Your task to perform on an android device: stop showing notifications on the lock screen Image 0: 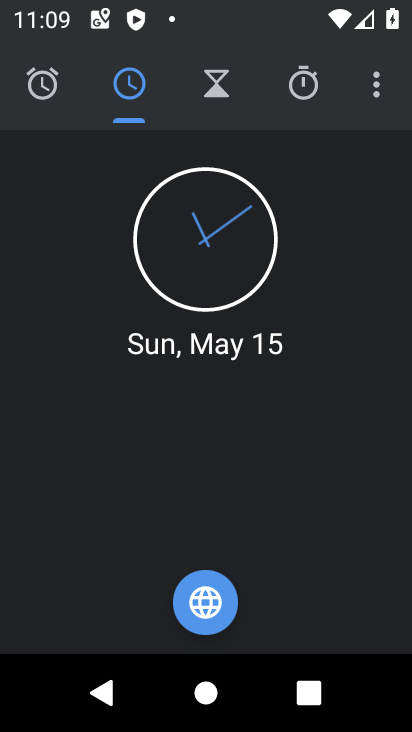
Step 0: press home button
Your task to perform on an android device: stop showing notifications on the lock screen Image 1: 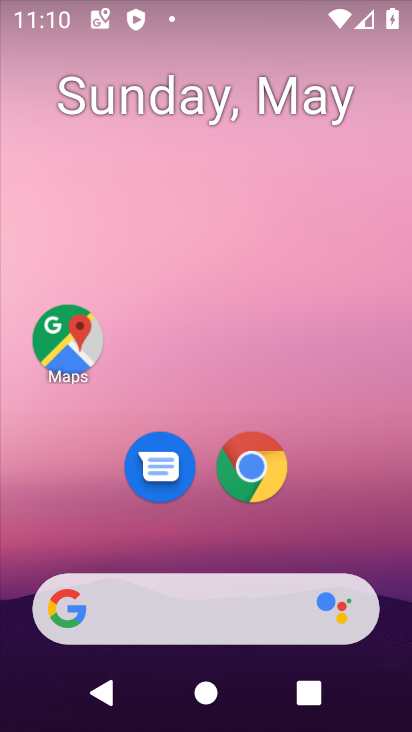
Step 1: drag from (380, 552) to (364, 18)
Your task to perform on an android device: stop showing notifications on the lock screen Image 2: 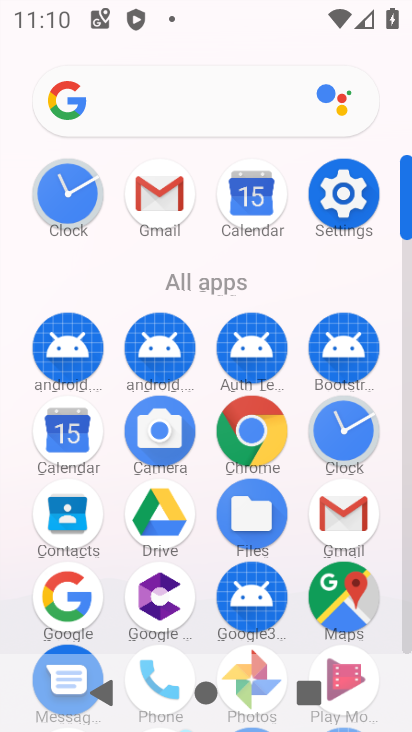
Step 2: click (347, 214)
Your task to perform on an android device: stop showing notifications on the lock screen Image 3: 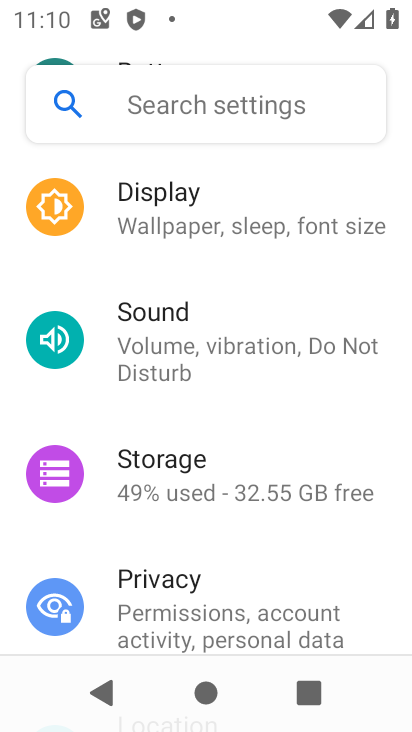
Step 3: drag from (342, 341) to (339, 534)
Your task to perform on an android device: stop showing notifications on the lock screen Image 4: 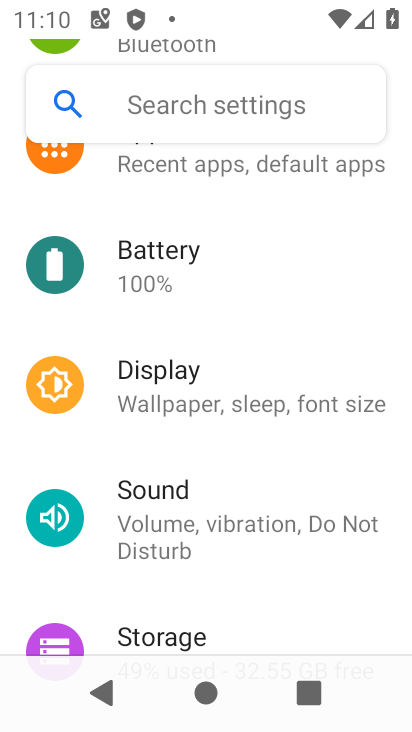
Step 4: drag from (291, 300) to (276, 594)
Your task to perform on an android device: stop showing notifications on the lock screen Image 5: 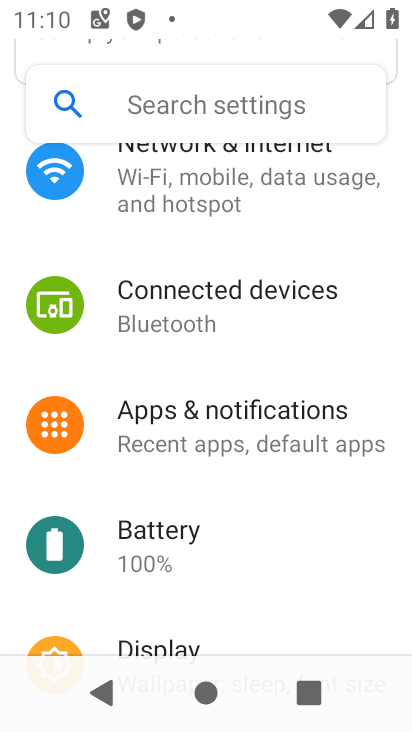
Step 5: click (214, 424)
Your task to perform on an android device: stop showing notifications on the lock screen Image 6: 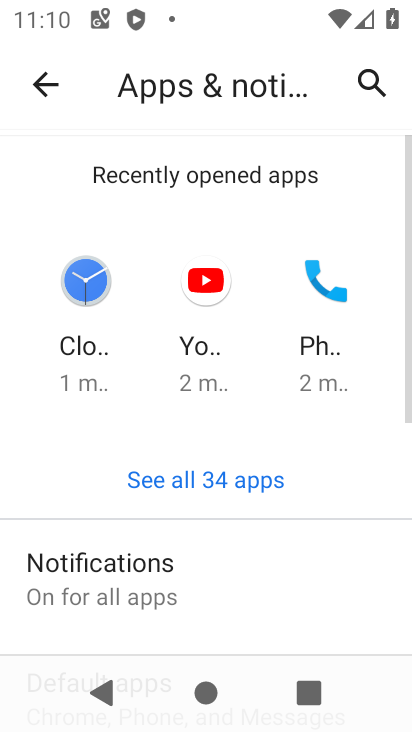
Step 6: click (105, 567)
Your task to perform on an android device: stop showing notifications on the lock screen Image 7: 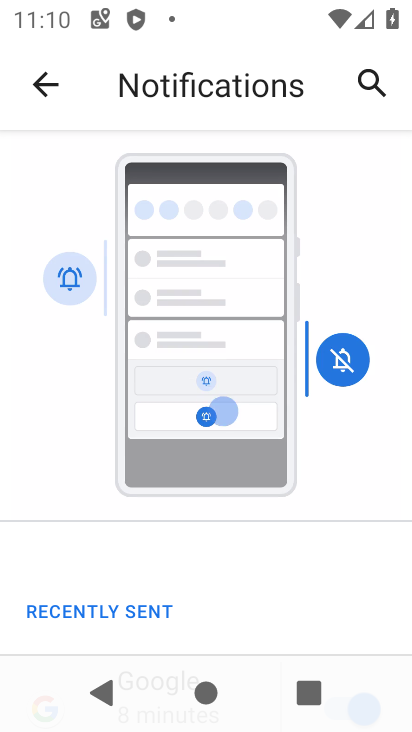
Step 7: drag from (278, 553) to (286, 91)
Your task to perform on an android device: stop showing notifications on the lock screen Image 8: 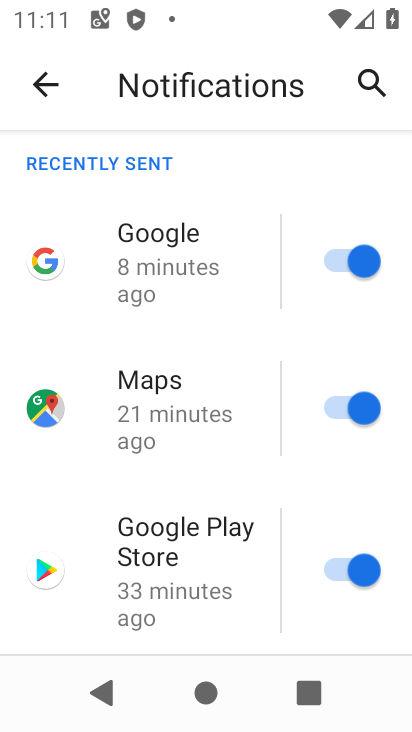
Step 8: drag from (220, 506) to (218, 129)
Your task to perform on an android device: stop showing notifications on the lock screen Image 9: 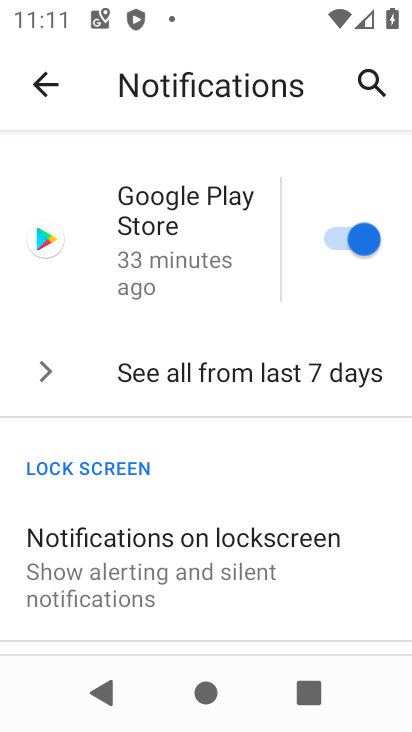
Step 9: click (113, 562)
Your task to perform on an android device: stop showing notifications on the lock screen Image 10: 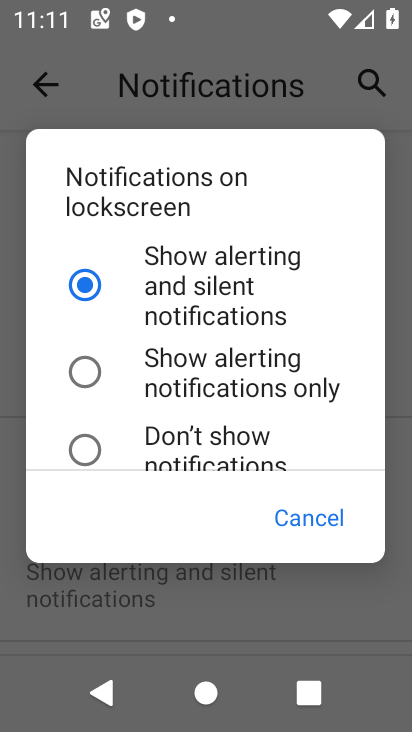
Step 10: click (87, 449)
Your task to perform on an android device: stop showing notifications on the lock screen Image 11: 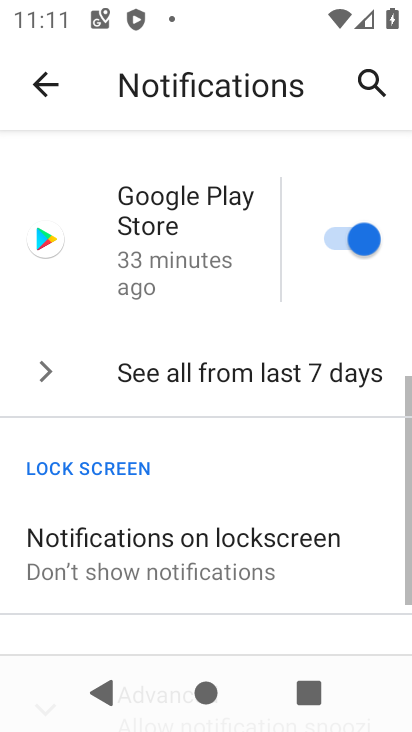
Step 11: task complete